Your task to perform on an android device: Look up the best rated kitchen knives on Amazon. Image 0: 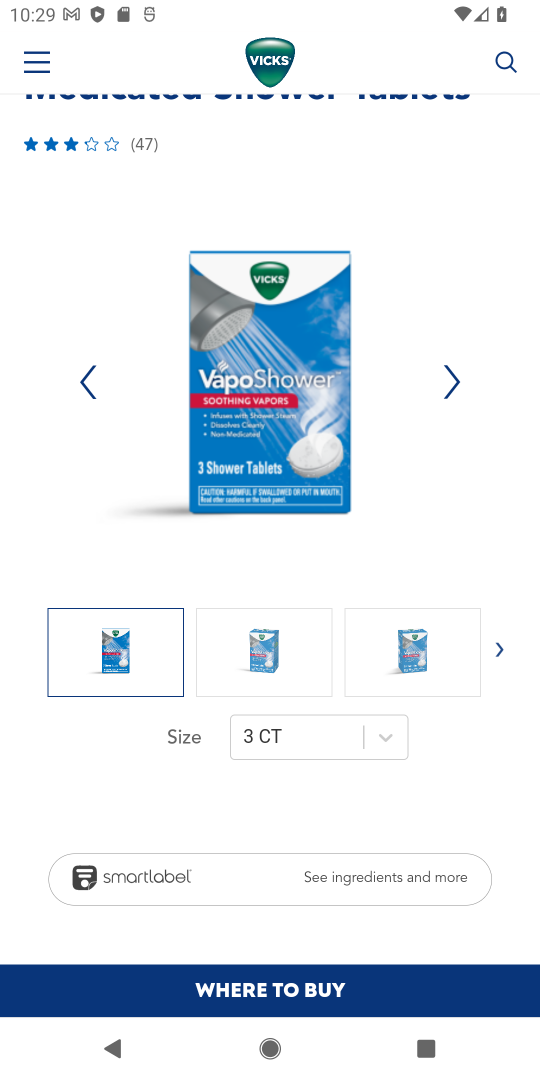
Step 0: press home button
Your task to perform on an android device: Look up the best rated kitchen knives on Amazon. Image 1: 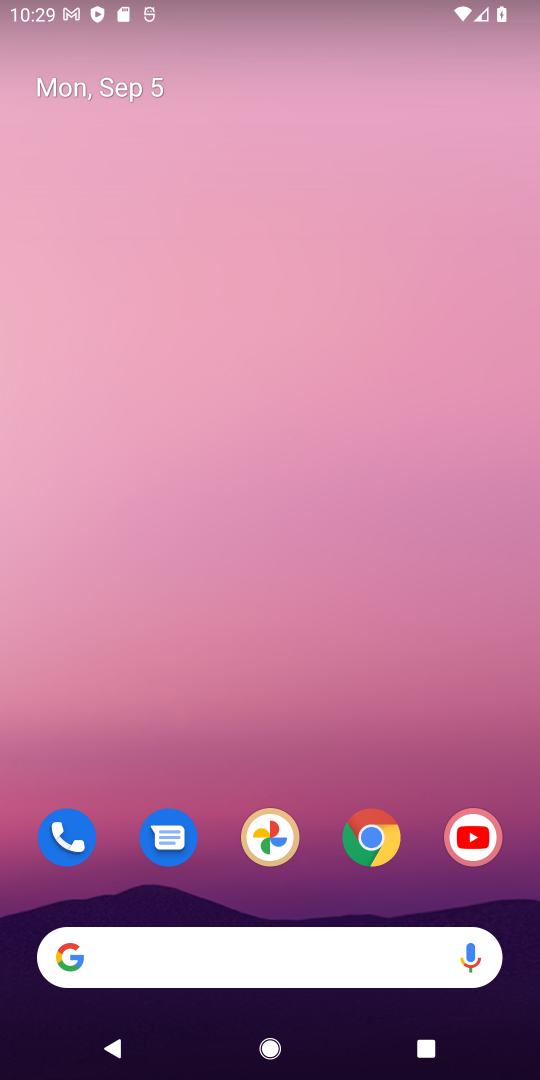
Step 1: drag from (324, 772) to (384, 172)
Your task to perform on an android device: Look up the best rated kitchen knives on Amazon. Image 2: 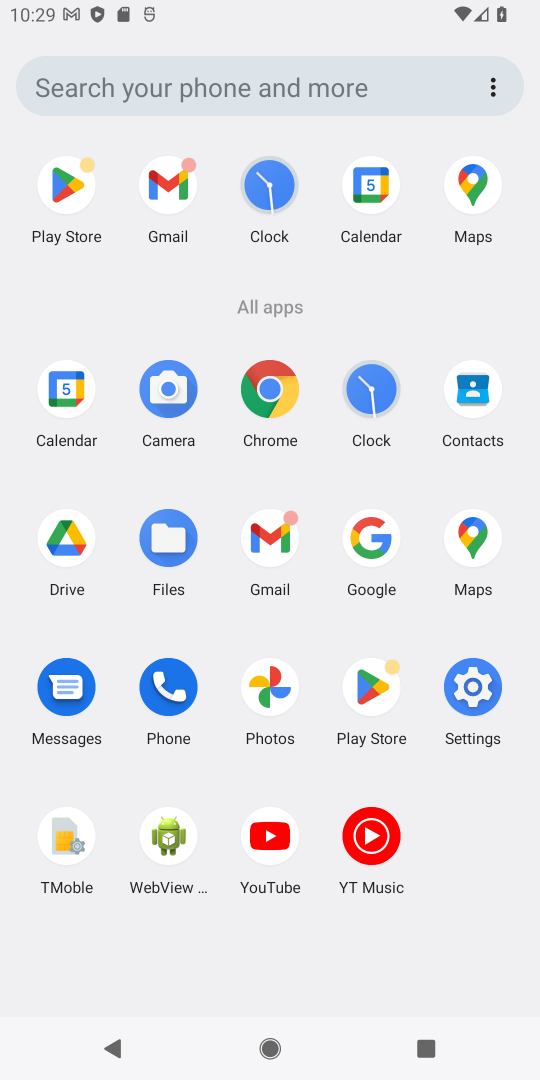
Step 2: click (262, 378)
Your task to perform on an android device: Look up the best rated kitchen knives on Amazon. Image 3: 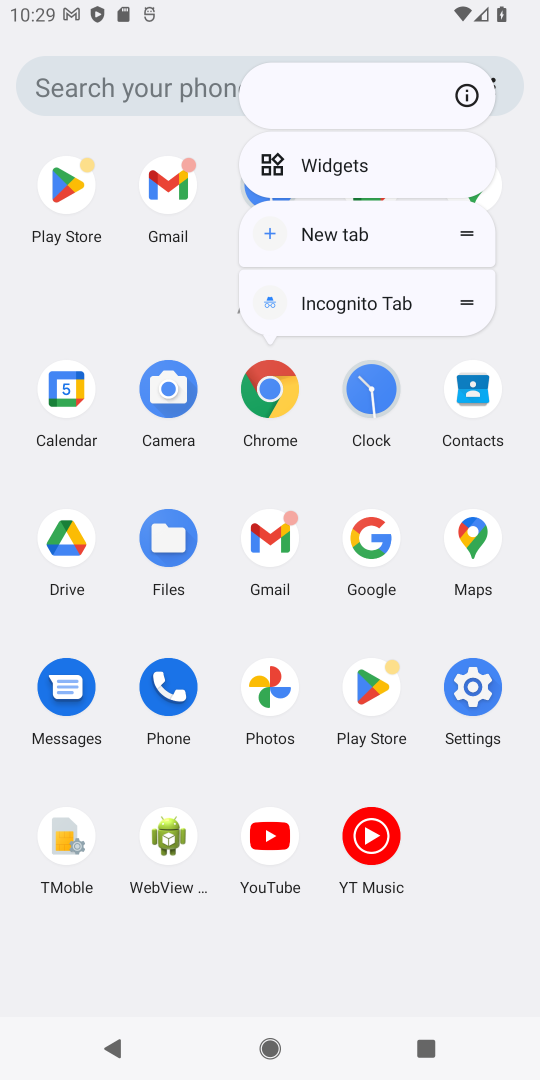
Step 3: click (268, 383)
Your task to perform on an android device: Look up the best rated kitchen knives on Amazon. Image 4: 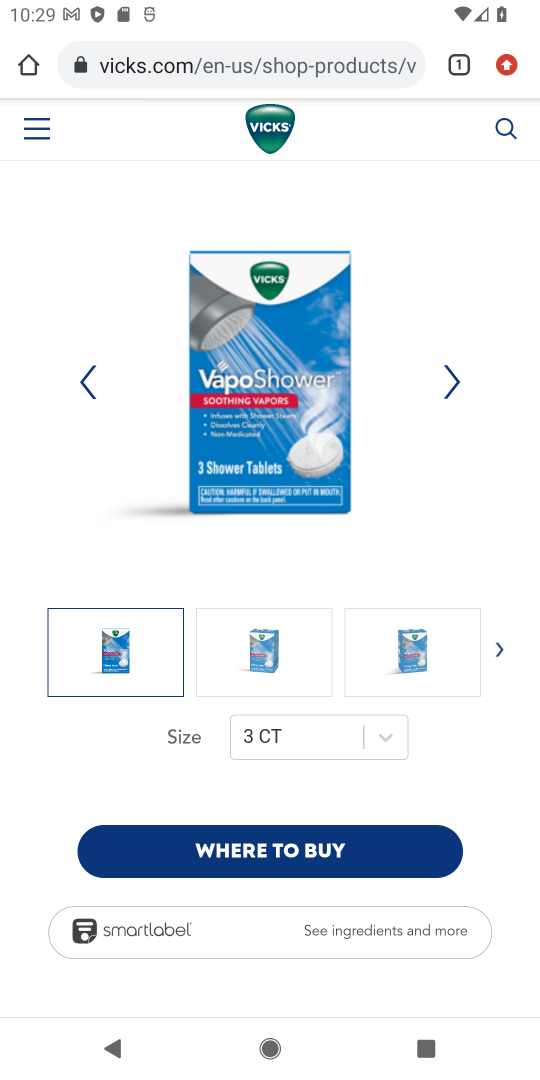
Step 4: click (280, 59)
Your task to perform on an android device: Look up the best rated kitchen knives on Amazon. Image 5: 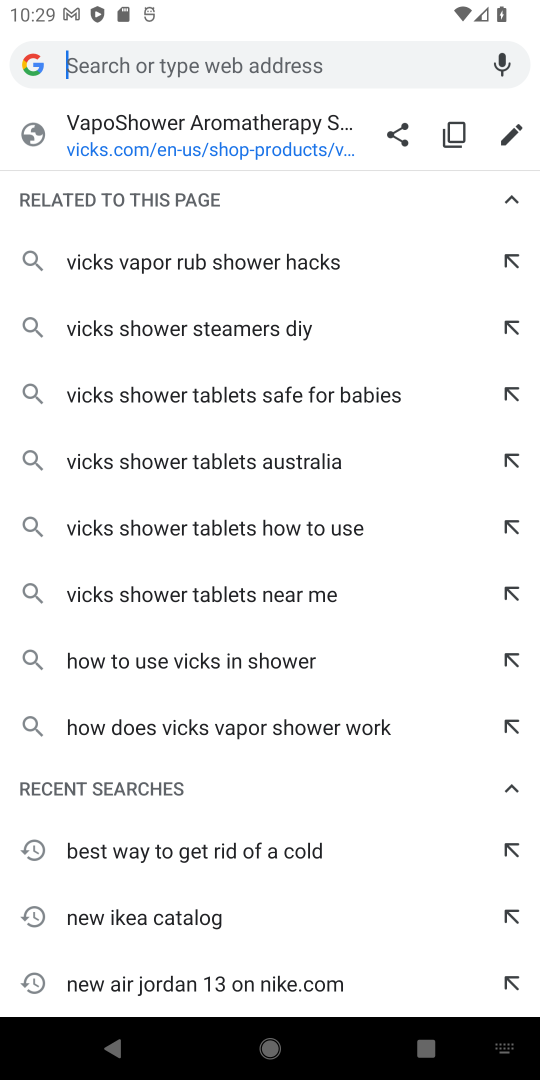
Step 5: type "best rated kitchen knives on Amazon"
Your task to perform on an android device: Look up the best rated kitchen knives on Amazon. Image 6: 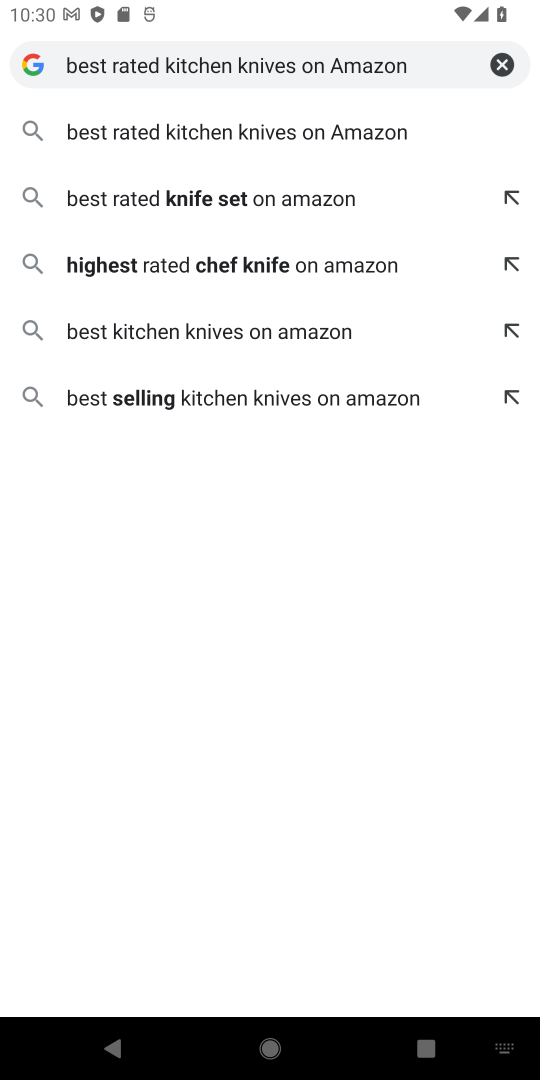
Step 6: click (252, 143)
Your task to perform on an android device: Look up the best rated kitchen knives on Amazon. Image 7: 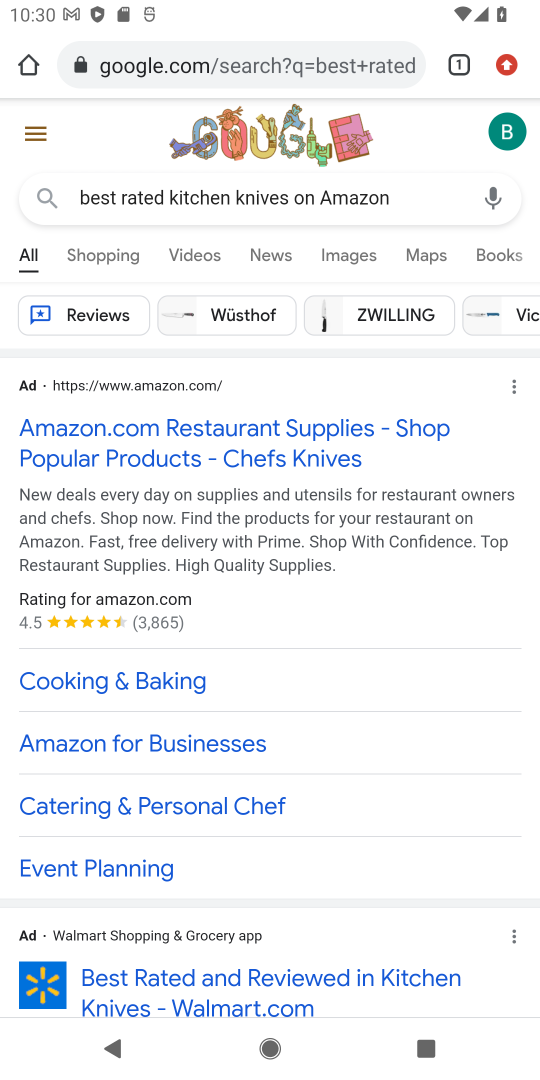
Step 7: click (268, 460)
Your task to perform on an android device: Look up the best rated kitchen knives on Amazon. Image 8: 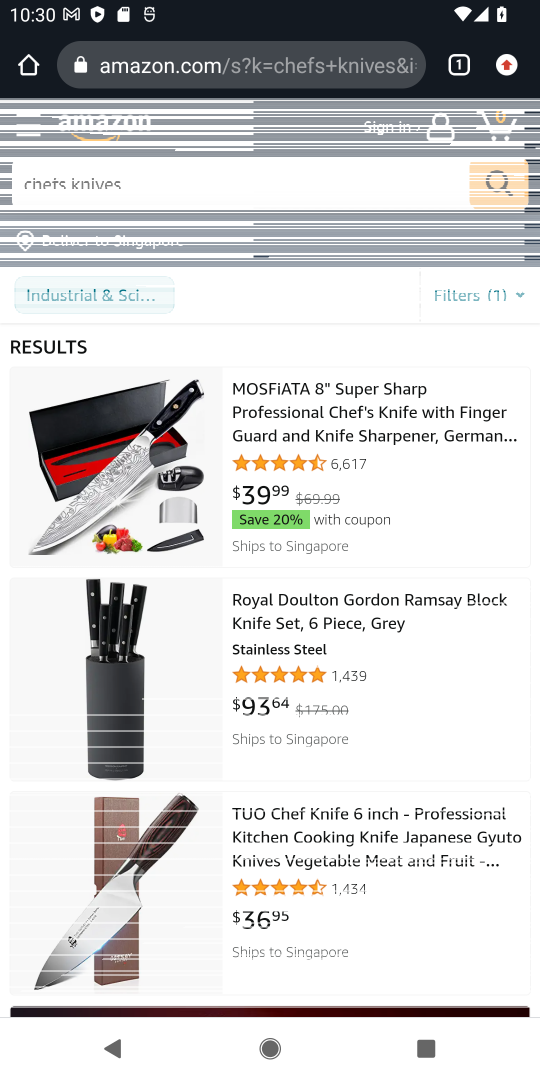
Step 8: task complete